Your task to perform on an android device: snooze an email in the gmail app Image 0: 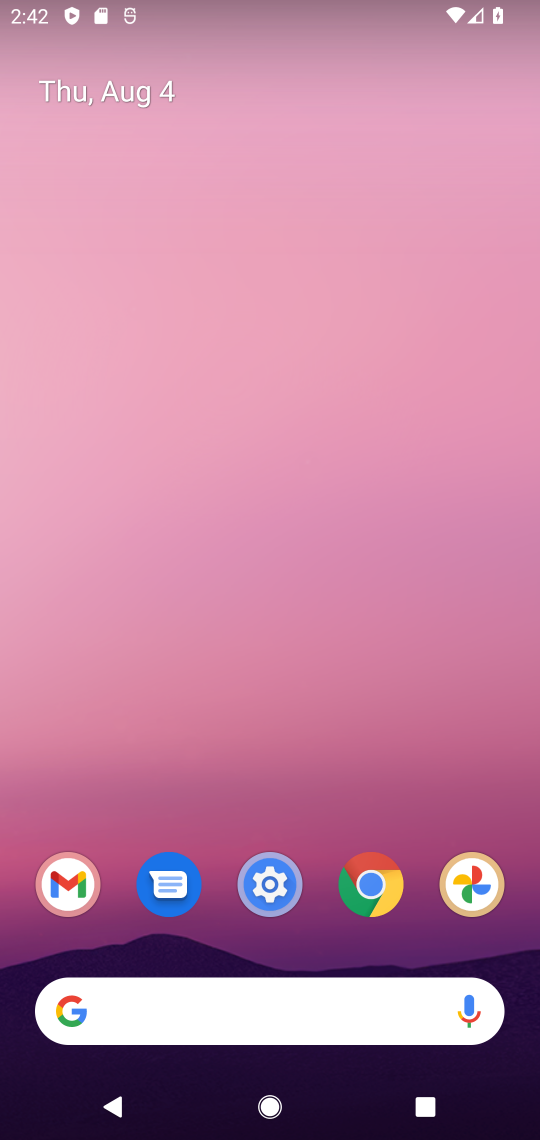
Step 0: drag from (234, 947) to (357, 385)
Your task to perform on an android device: snooze an email in the gmail app Image 1: 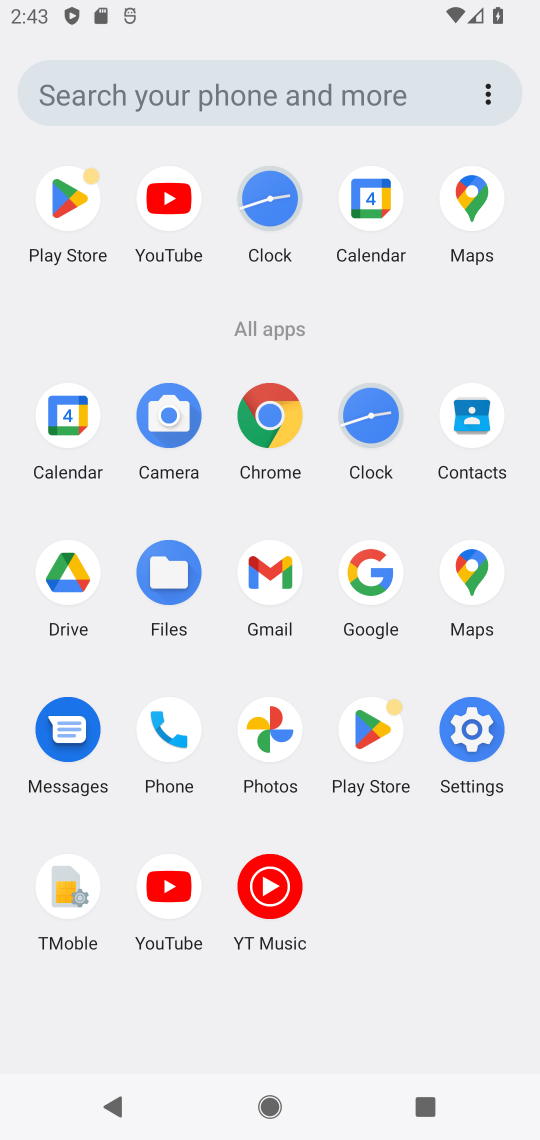
Step 1: click (272, 557)
Your task to perform on an android device: snooze an email in the gmail app Image 2: 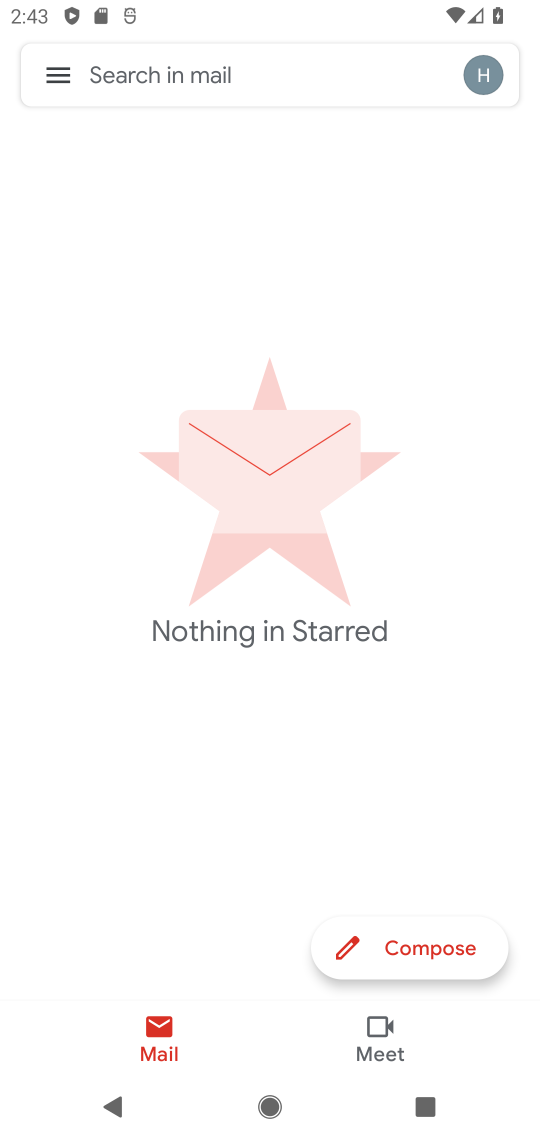
Step 2: click (59, 79)
Your task to perform on an android device: snooze an email in the gmail app Image 3: 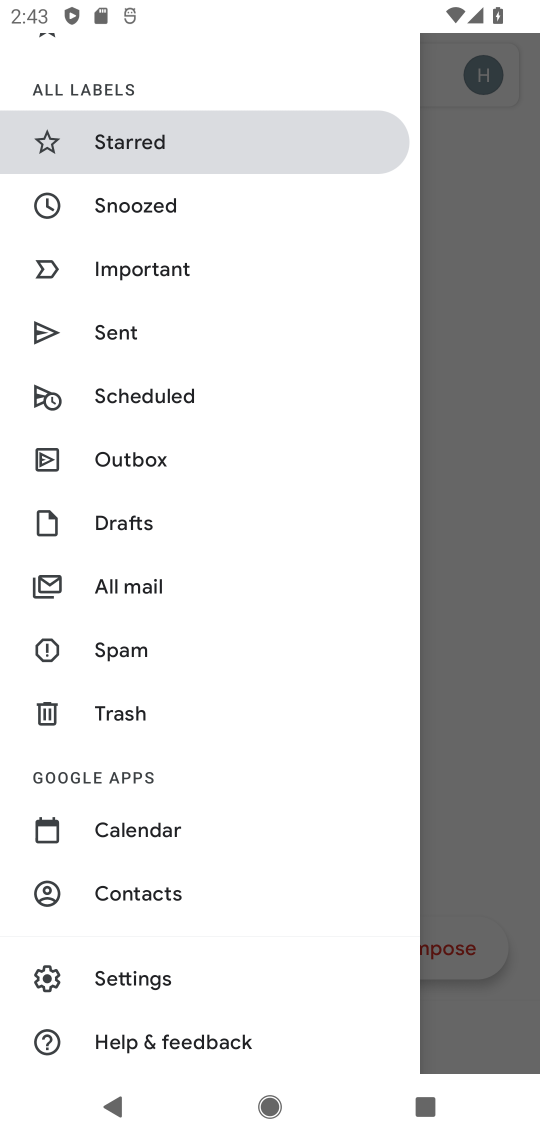
Step 3: click (130, 209)
Your task to perform on an android device: snooze an email in the gmail app Image 4: 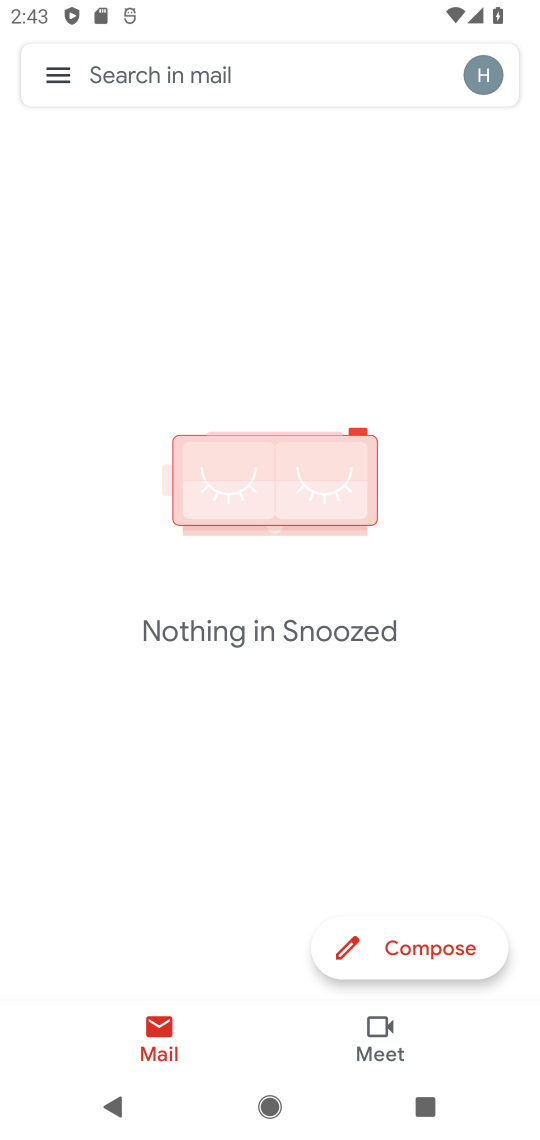
Step 4: task complete